Your task to perform on an android device: allow cookies in the chrome app Image 0: 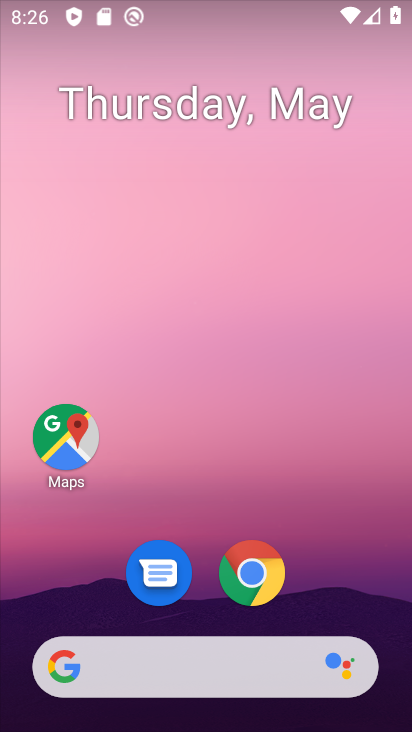
Step 0: click (280, 582)
Your task to perform on an android device: allow cookies in the chrome app Image 1: 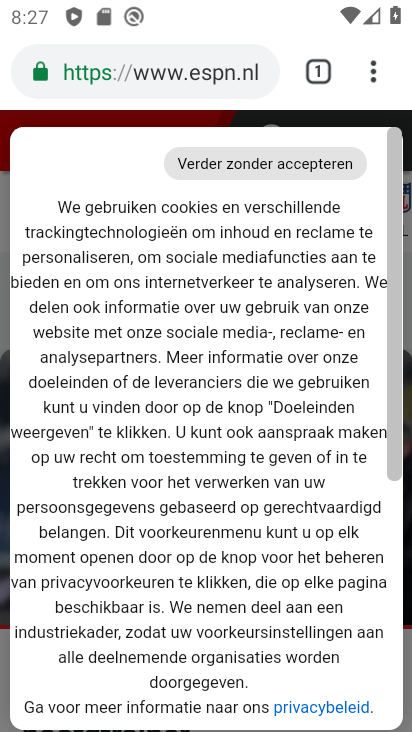
Step 1: drag from (377, 74) to (259, 581)
Your task to perform on an android device: allow cookies in the chrome app Image 2: 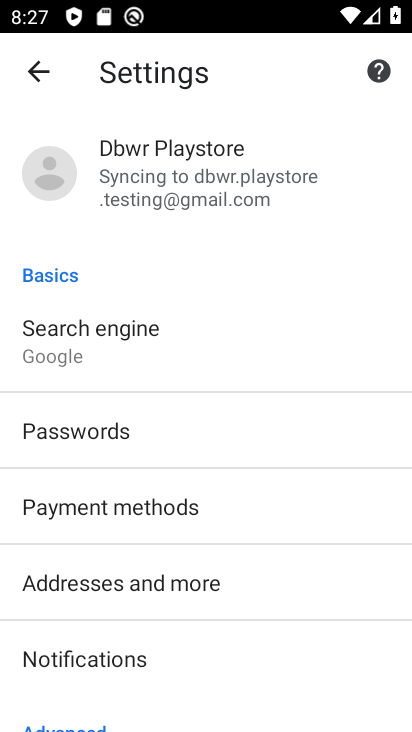
Step 2: drag from (212, 514) to (193, 287)
Your task to perform on an android device: allow cookies in the chrome app Image 3: 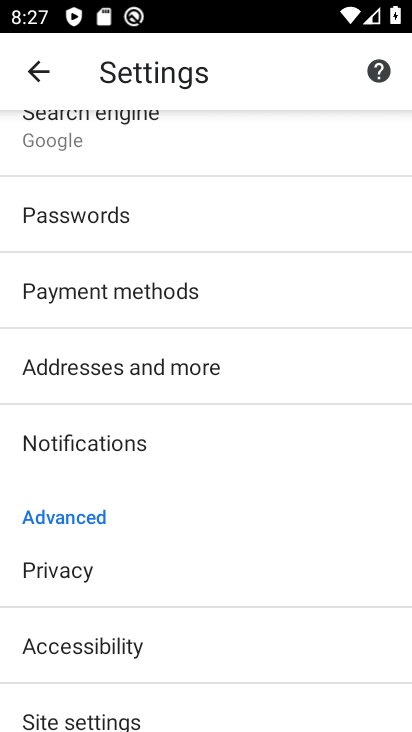
Step 3: drag from (187, 693) to (174, 427)
Your task to perform on an android device: allow cookies in the chrome app Image 4: 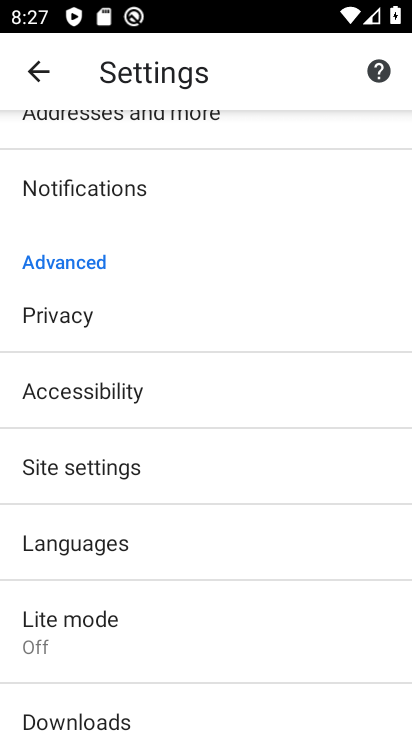
Step 4: click (106, 495)
Your task to perform on an android device: allow cookies in the chrome app Image 5: 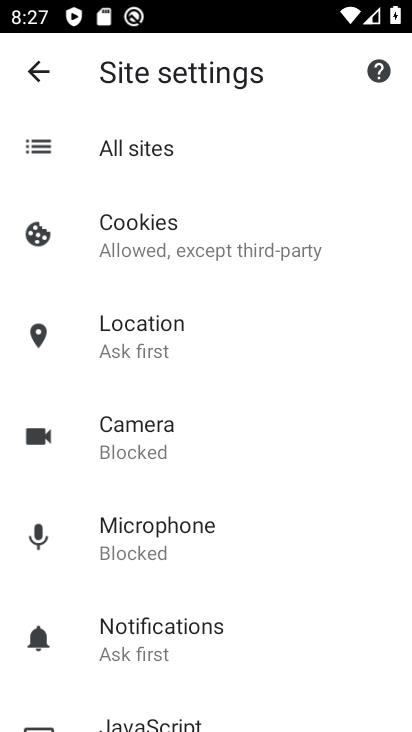
Step 5: click (154, 253)
Your task to perform on an android device: allow cookies in the chrome app Image 6: 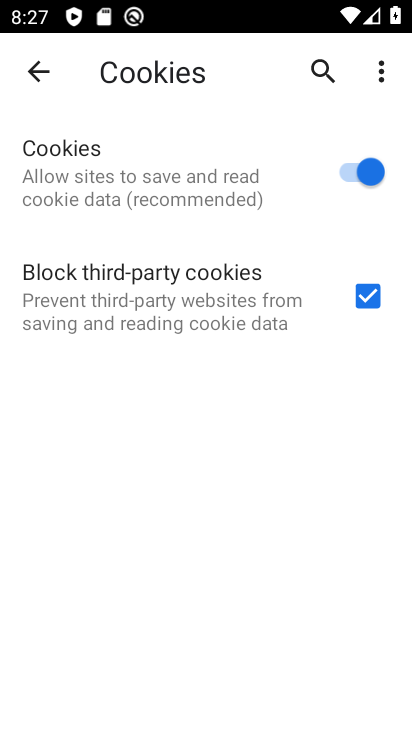
Step 6: task complete